Your task to perform on an android device: turn off priority inbox in the gmail app Image 0: 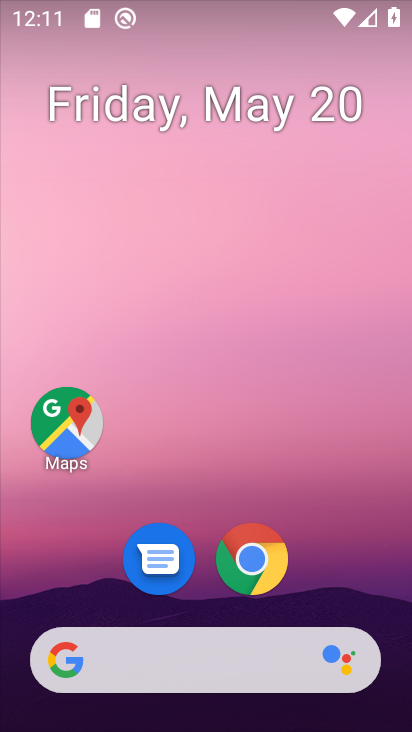
Step 0: drag from (381, 591) to (299, 99)
Your task to perform on an android device: turn off priority inbox in the gmail app Image 1: 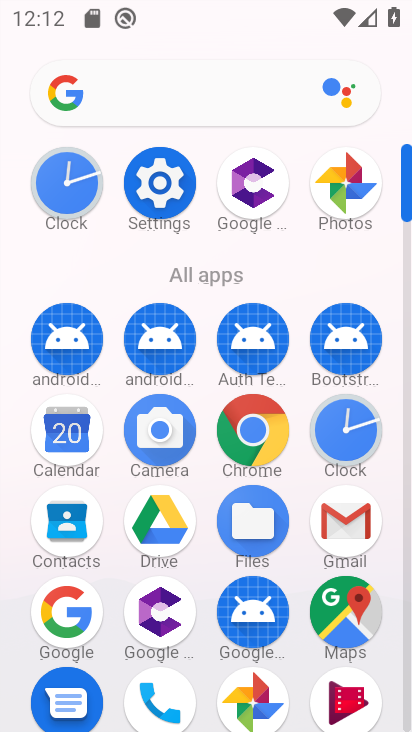
Step 1: click (362, 519)
Your task to perform on an android device: turn off priority inbox in the gmail app Image 2: 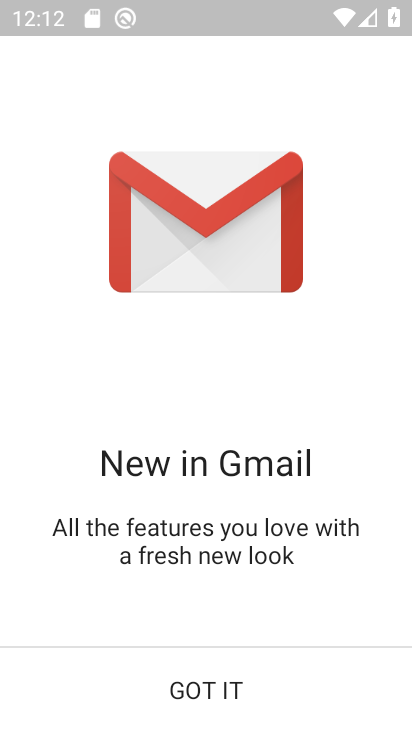
Step 2: click (191, 679)
Your task to perform on an android device: turn off priority inbox in the gmail app Image 3: 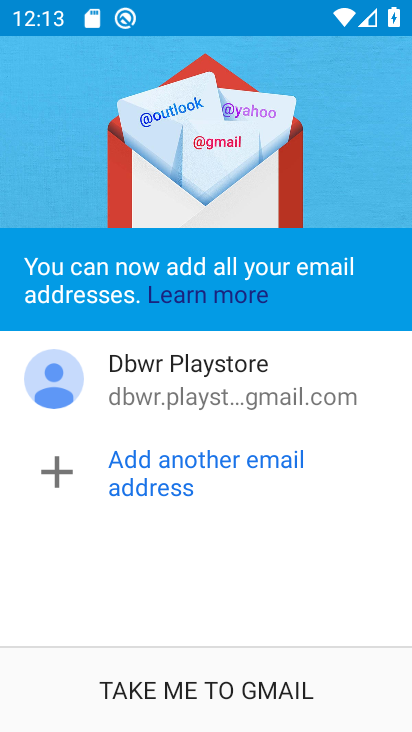
Step 3: click (172, 698)
Your task to perform on an android device: turn off priority inbox in the gmail app Image 4: 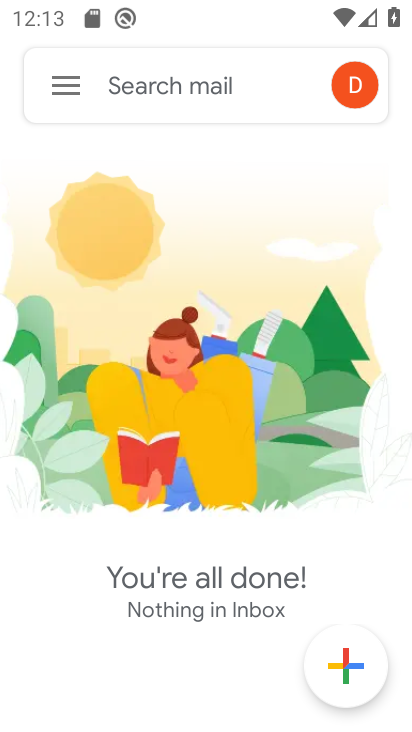
Step 4: click (60, 91)
Your task to perform on an android device: turn off priority inbox in the gmail app Image 5: 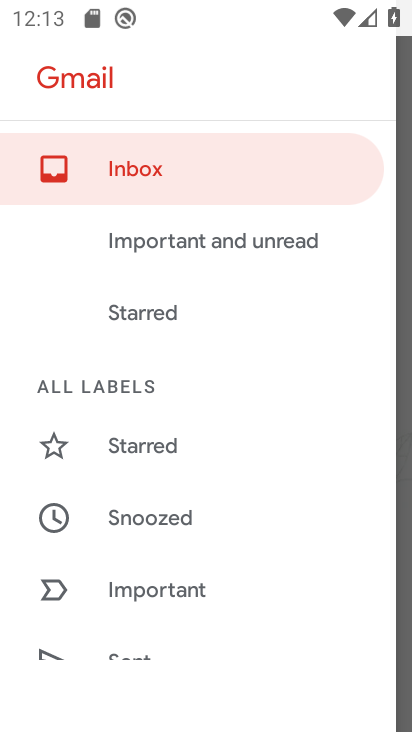
Step 5: drag from (214, 594) to (176, 297)
Your task to perform on an android device: turn off priority inbox in the gmail app Image 6: 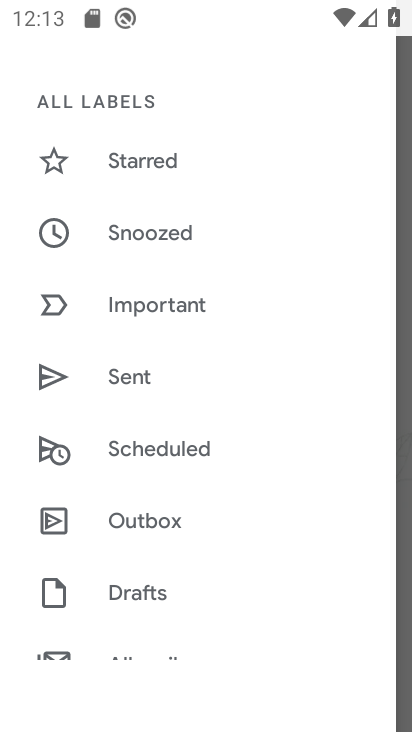
Step 6: drag from (217, 623) to (187, 162)
Your task to perform on an android device: turn off priority inbox in the gmail app Image 7: 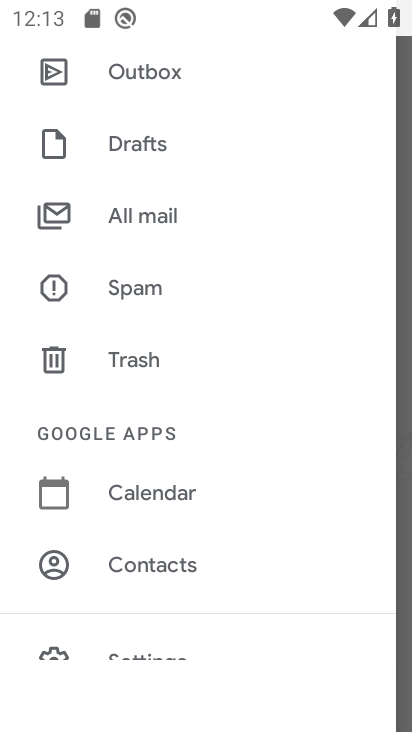
Step 7: drag from (238, 633) to (216, 338)
Your task to perform on an android device: turn off priority inbox in the gmail app Image 8: 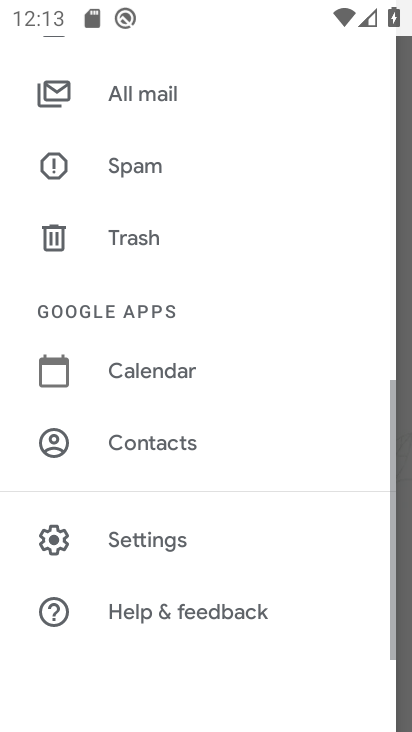
Step 8: click (214, 535)
Your task to perform on an android device: turn off priority inbox in the gmail app Image 9: 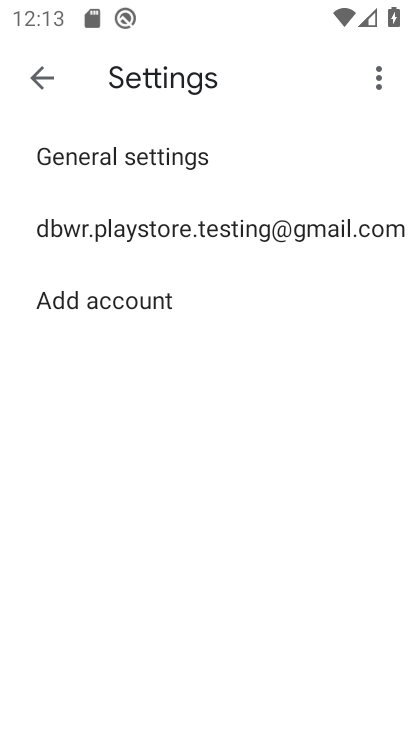
Step 9: click (236, 248)
Your task to perform on an android device: turn off priority inbox in the gmail app Image 10: 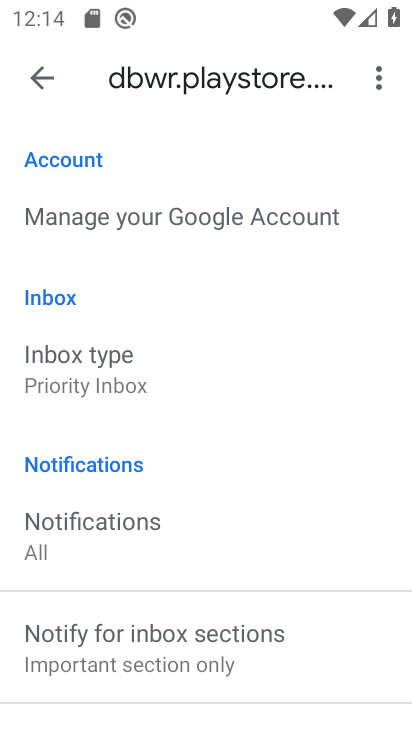
Step 10: click (217, 366)
Your task to perform on an android device: turn off priority inbox in the gmail app Image 11: 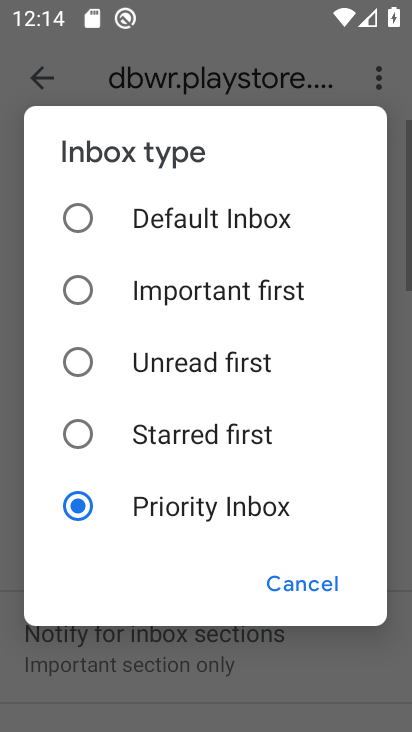
Step 11: click (219, 231)
Your task to perform on an android device: turn off priority inbox in the gmail app Image 12: 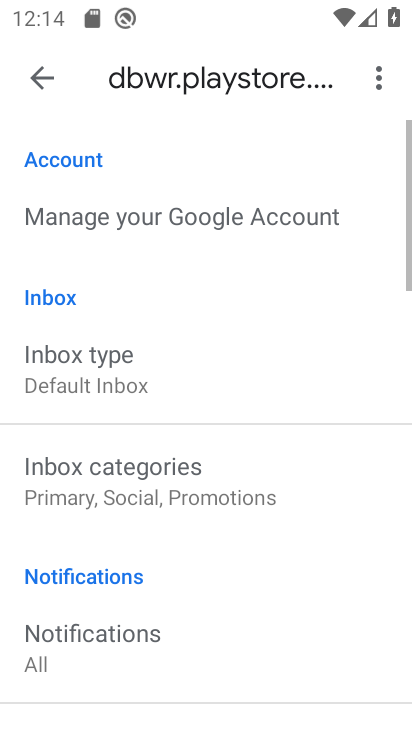
Step 12: task complete